Your task to perform on an android device: Go to Yahoo.com Image 0: 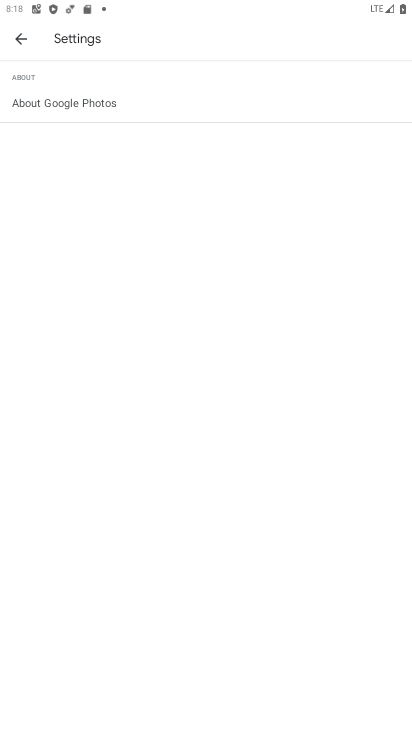
Step 0: drag from (204, 402) to (310, 131)
Your task to perform on an android device: Go to Yahoo.com Image 1: 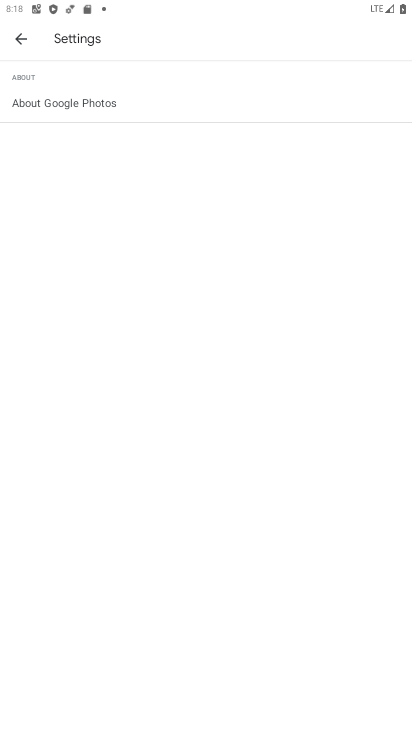
Step 1: drag from (187, 425) to (252, 257)
Your task to perform on an android device: Go to Yahoo.com Image 2: 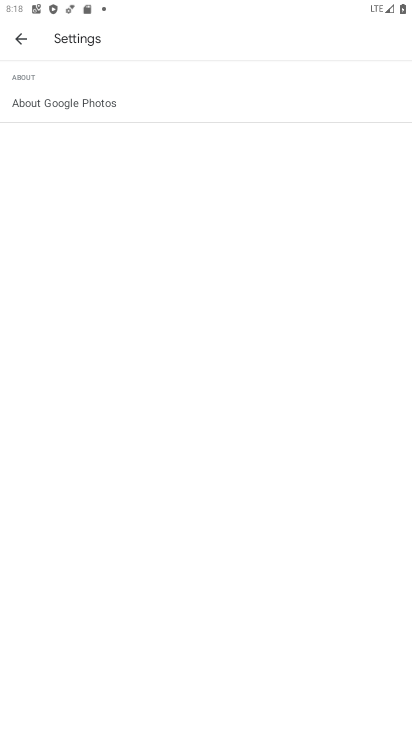
Step 2: press home button
Your task to perform on an android device: Go to Yahoo.com Image 3: 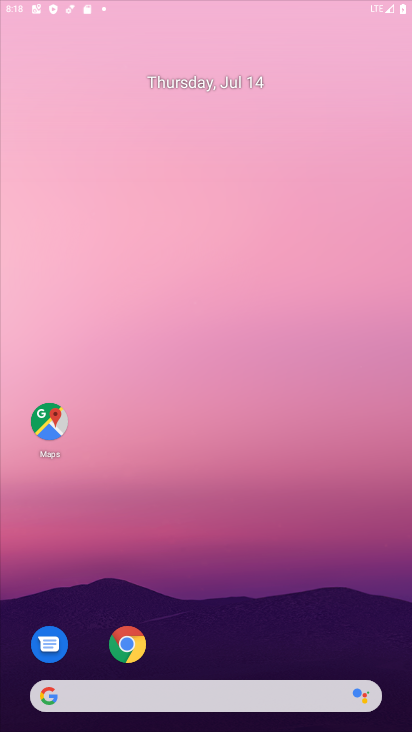
Step 3: drag from (195, 542) to (230, 437)
Your task to perform on an android device: Go to Yahoo.com Image 4: 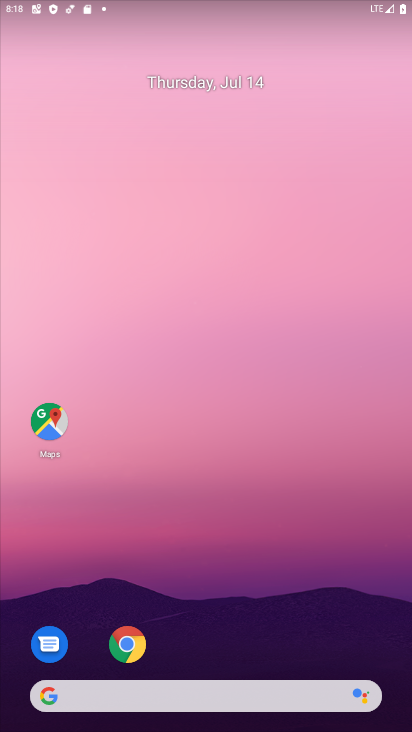
Step 4: drag from (185, 605) to (284, 36)
Your task to perform on an android device: Go to Yahoo.com Image 5: 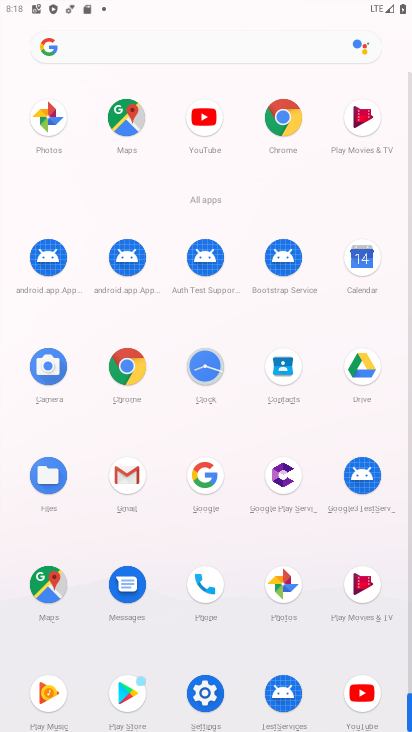
Step 5: drag from (149, 638) to (219, 379)
Your task to perform on an android device: Go to Yahoo.com Image 6: 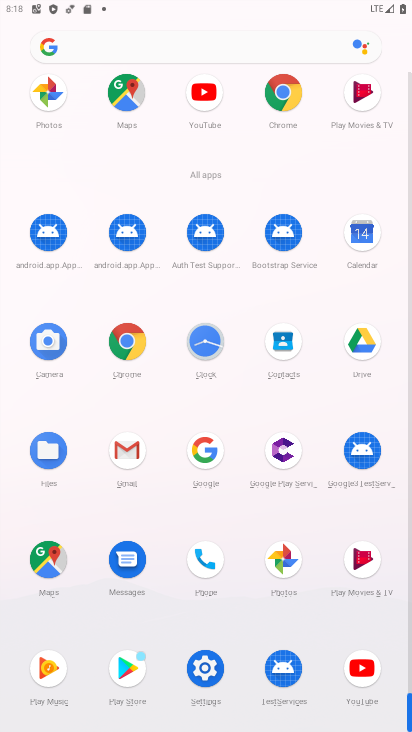
Step 6: drag from (160, 654) to (213, 439)
Your task to perform on an android device: Go to Yahoo.com Image 7: 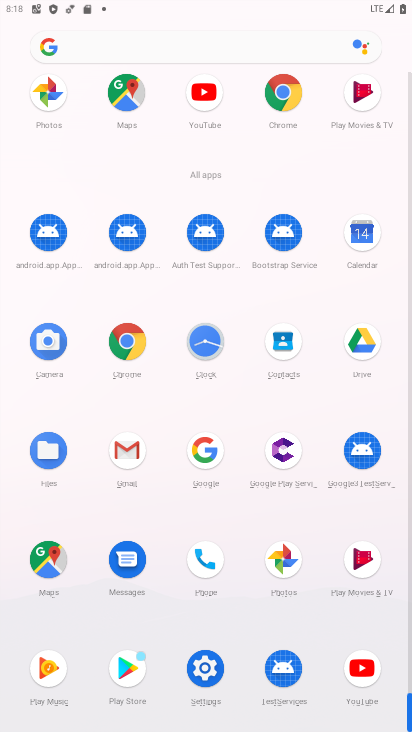
Step 7: drag from (154, 661) to (249, 350)
Your task to perform on an android device: Go to Yahoo.com Image 8: 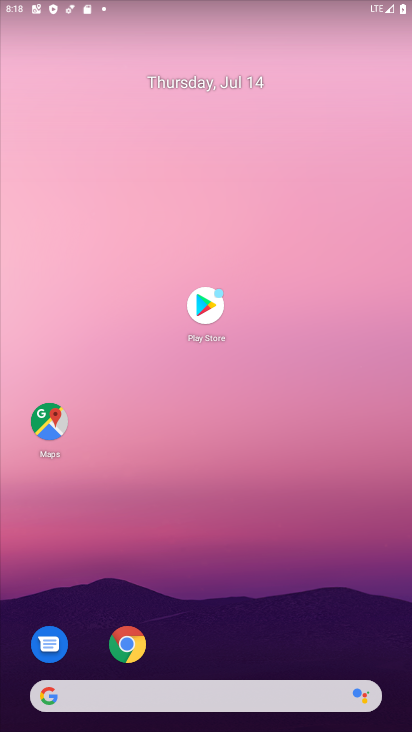
Step 8: drag from (192, 645) to (241, 144)
Your task to perform on an android device: Go to Yahoo.com Image 9: 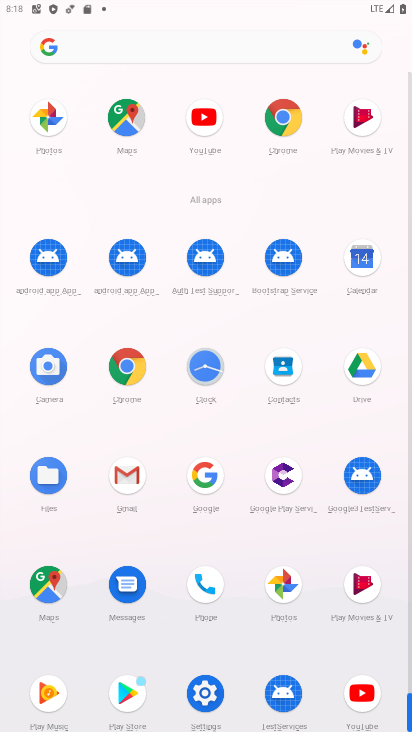
Step 9: drag from (227, 649) to (254, 284)
Your task to perform on an android device: Go to Yahoo.com Image 10: 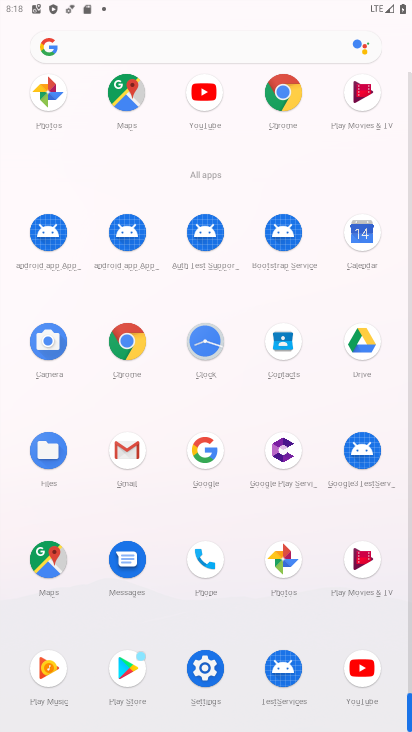
Step 10: drag from (237, 682) to (267, 447)
Your task to perform on an android device: Go to Yahoo.com Image 11: 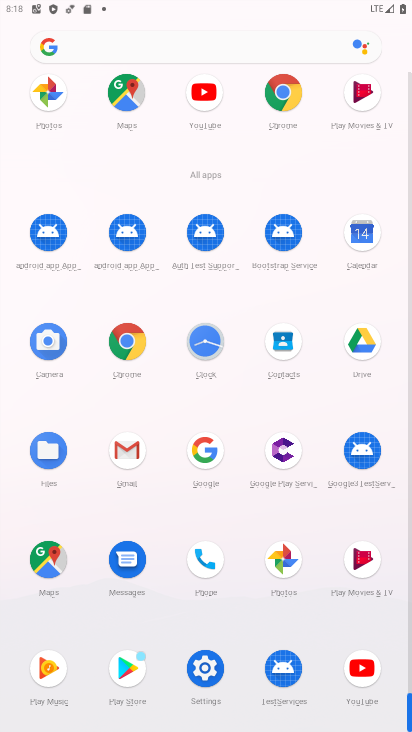
Step 11: drag from (246, 674) to (265, 524)
Your task to perform on an android device: Go to Yahoo.com Image 12: 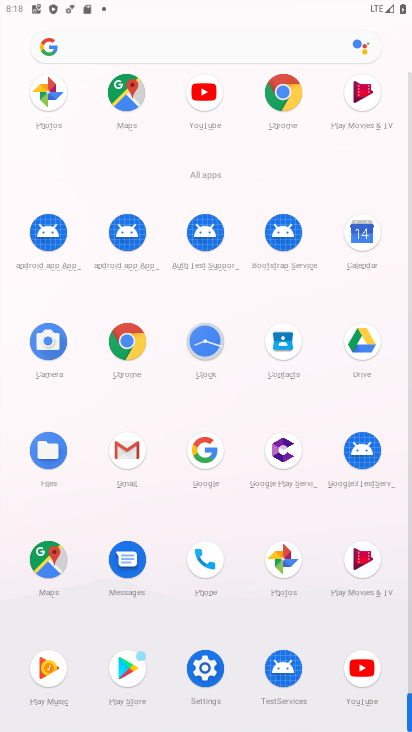
Step 12: drag from (237, 687) to (273, 338)
Your task to perform on an android device: Go to Yahoo.com Image 13: 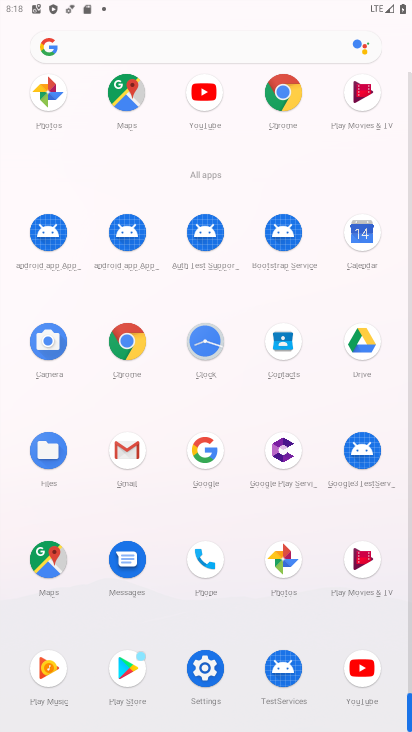
Step 13: click (240, 47)
Your task to perform on an android device: Go to Yahoo.com Image 14: 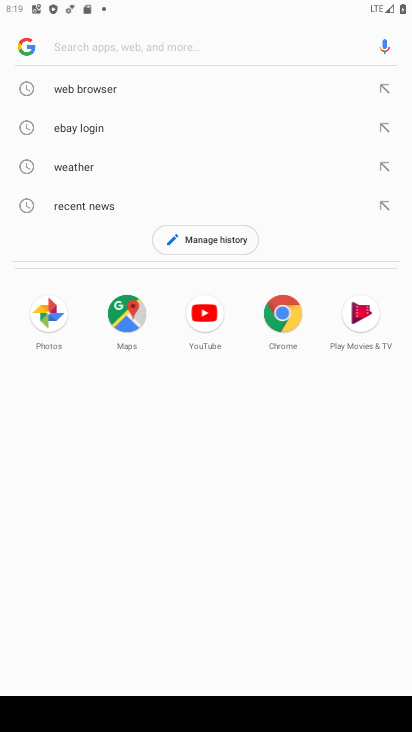
Step 14: type "yahoo"
Your task to perform on an android device: Go to Yahoo.com Image 15: 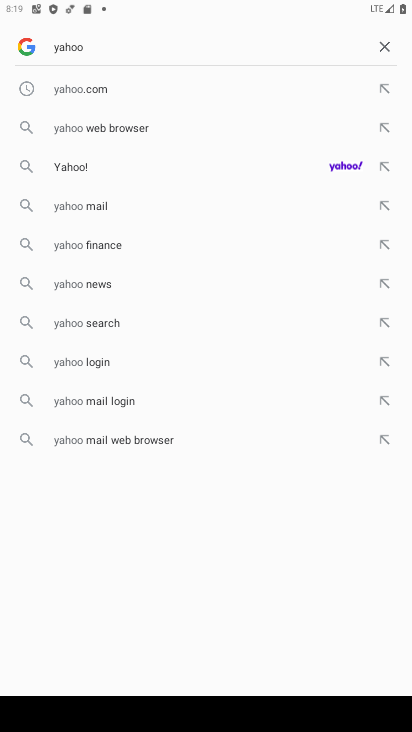
Step 15: click (89, 169)
Your task to perform on an android device: Go to Yahoo.com Image 16: 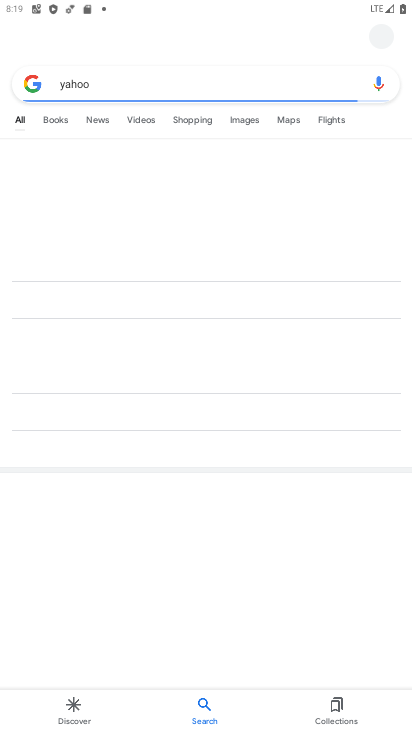
Step 16: drag from (222, 589) to (284, 229)
Your task to perform on an android device: Go to Yahoo.com Image 17: 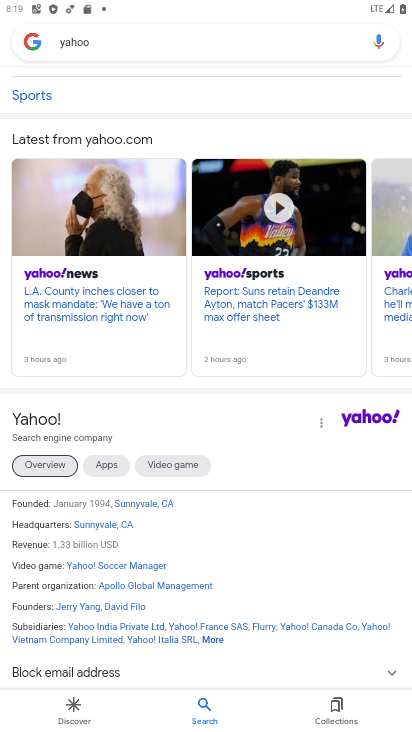
Step 17: drag from (231, 482) to (243, 628)
Your task to perform on an android device: Go to Yahoo.com Image 18: 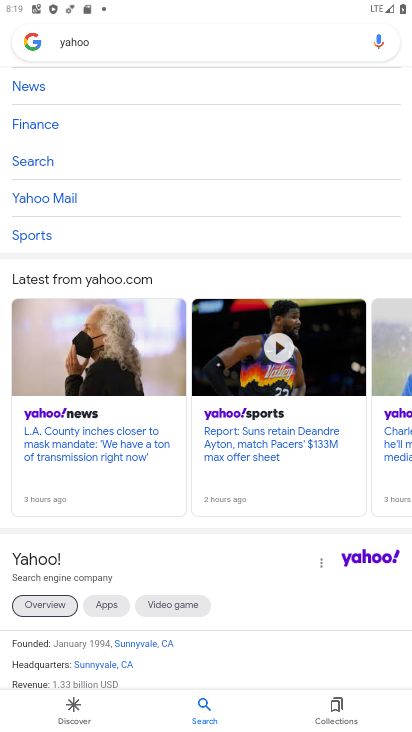
Step 18: drag from (112, 175) to (227, 704)
Your task to perform on an android device: Go to Yahoo.com Image 19: 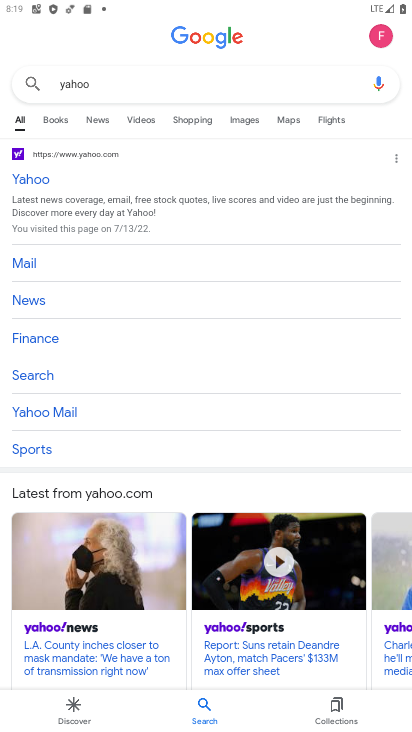
Step 19: click (28, 174)
Your task to perform on an android device: Go to Yahoo.com Image 20: 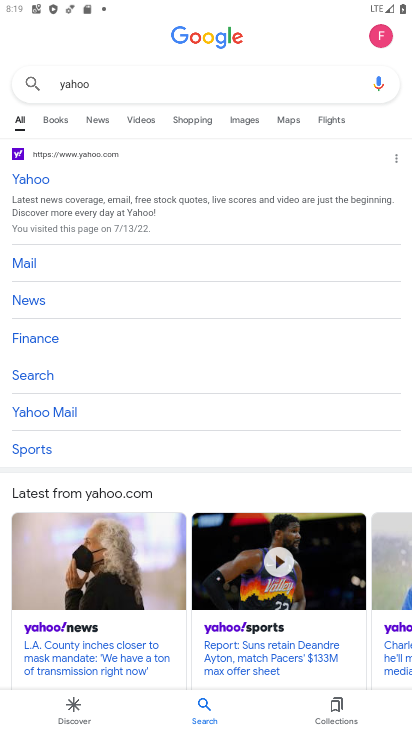
Step 20: task complete